Your task to perform on an android device: What's on my calendar tomorrow? Image 0: 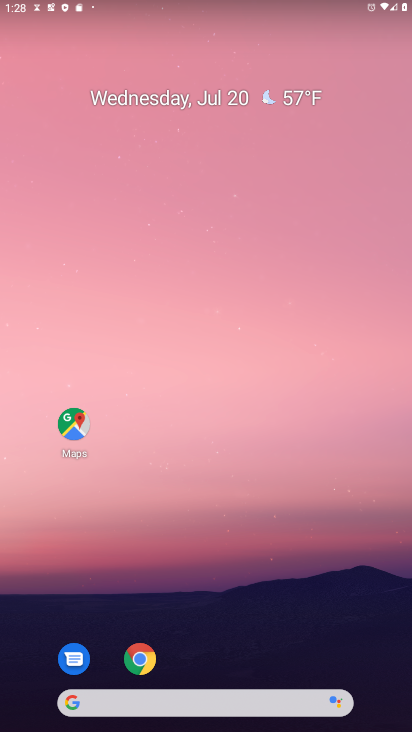
Step 0: drag from (217, 665) to (231, 5)
Your task to perform on an android device: What's on my calendar tomorrow? Image 1: 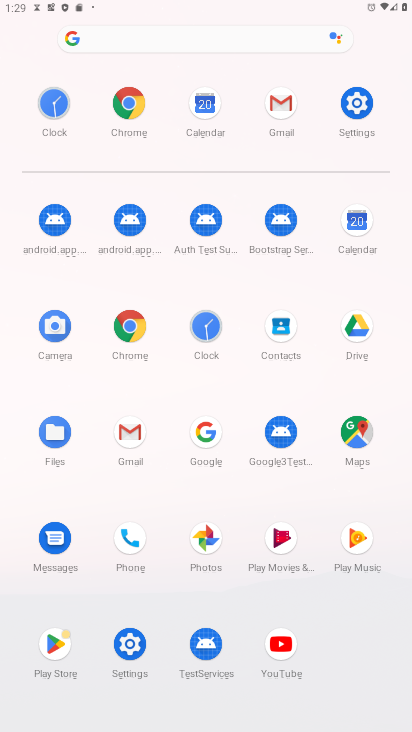
Step 1: click (351, 214)
Your task to perform on an android device: What's on my calendar tomorrow? Image 2: 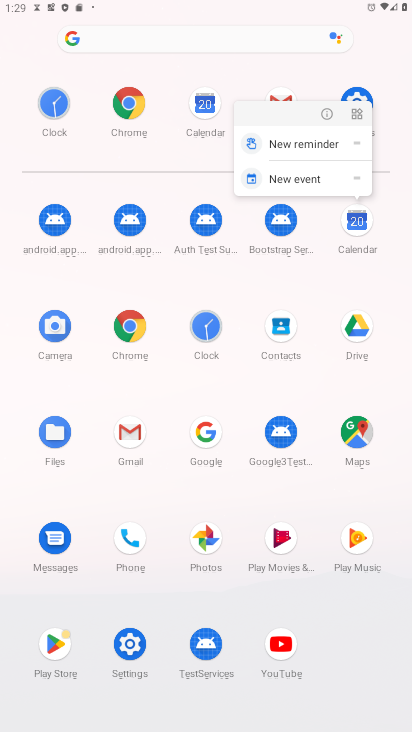
Step 2: click (359, 229)
Your task to perform on an android device: What's on my calendar tomorrow? Image 3: 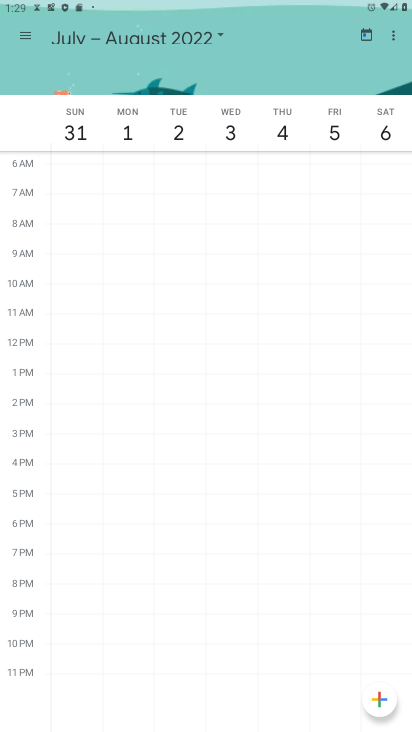
Step 3: drag from (72, 128) to (410, 141)
Your task to perform on an android device: What's on my calendar tomorrow? Image 4: 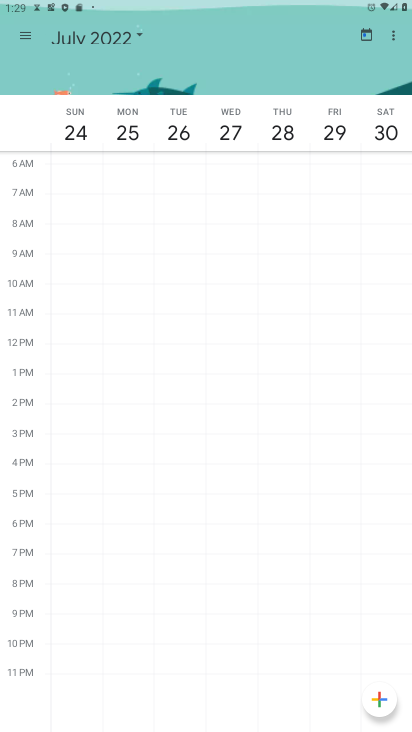
Step 4: drag from (70, 133) to (409, 103)
Your task to perform on an android device: What's on my calendar tomorrow? Image 5: 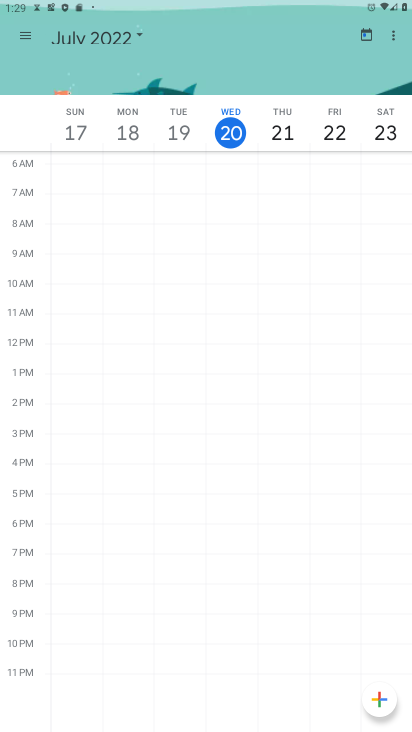
Step 5: click (234, 131)
Your task to perform on an android device: What's on my calendar tomorrow? Image 6: 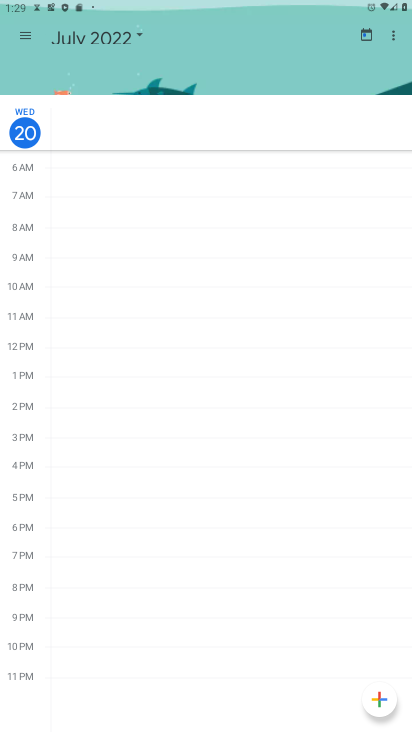
Step 6: click (25, 129)
Your task to perform on an android device: What's on my calendar tomorrow? Image 7: 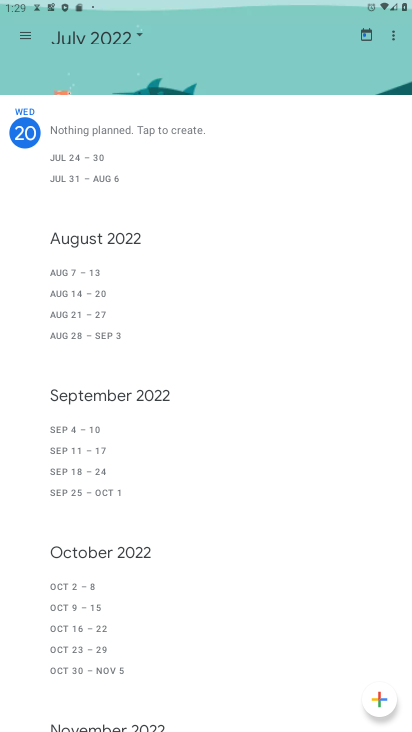
Step 7: click (139, 34)
Your task to perform on an android device: What's on my calendar tomorrow? Image 8: 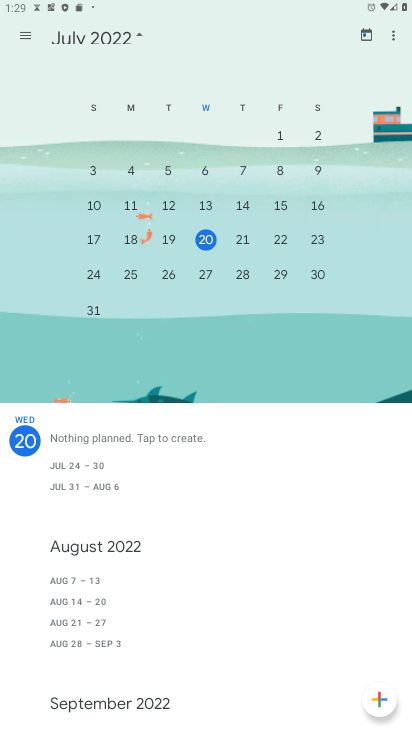
Step 8: click (241, 232)
Your task to perform on an android device: What's on my calendar tomorrow? Image 9: 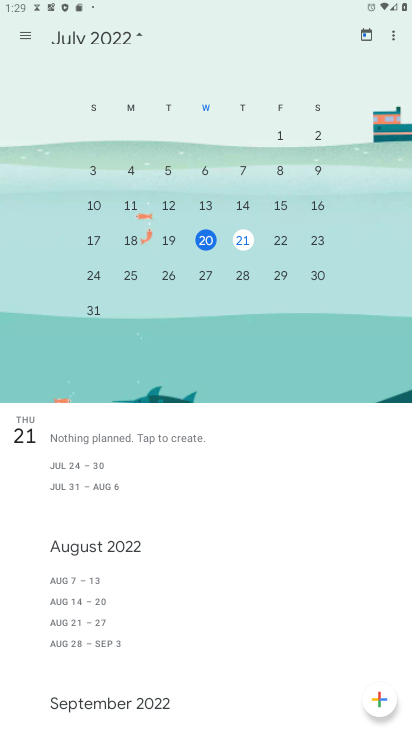
Step 9: click (134, 34)
Your task to perform on an android device: What's on my calendar tomorrow? Image 10: 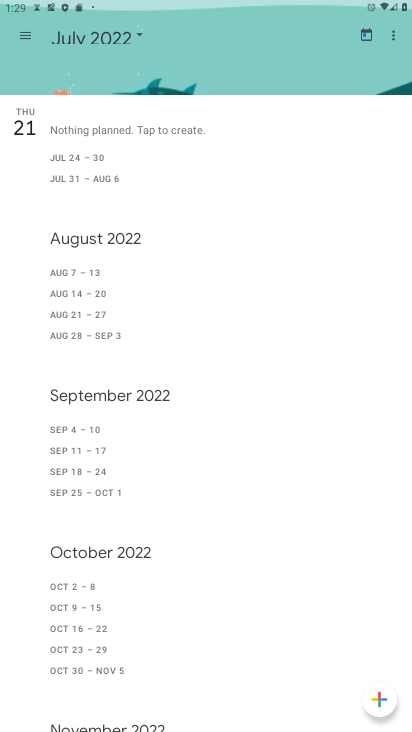
Step 10: click (32, 125)
Your task to perform on an android device: What's on my calendar tomorrow? Image 11: 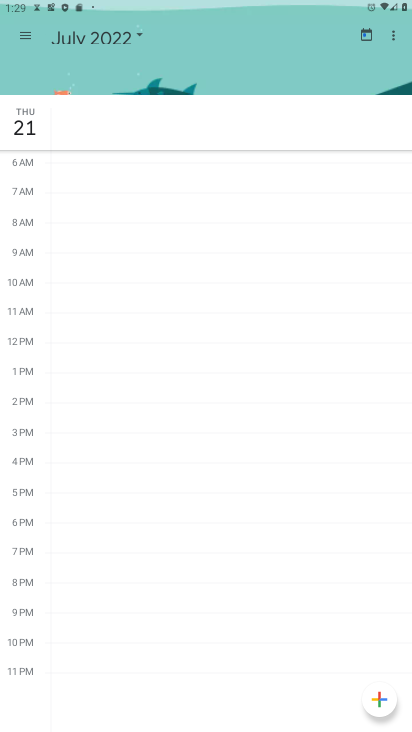
Step 11: task complete